Your task to perform on an android device: refresh tabs in the chrome app Image 0: 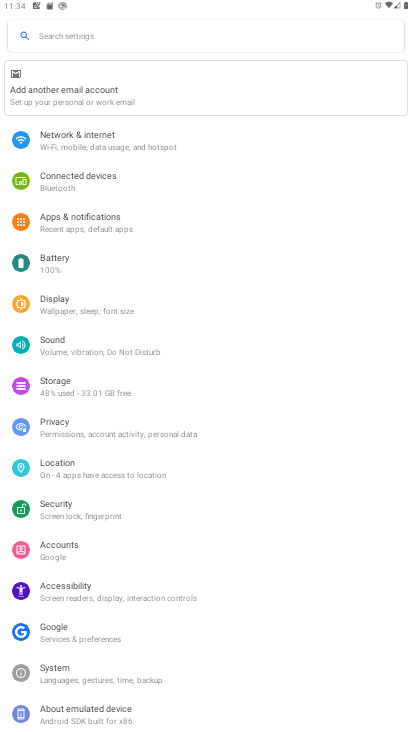
Step 0: press home button
Your task to perform on an android device: refresh tabs in the chrome app Image 1: 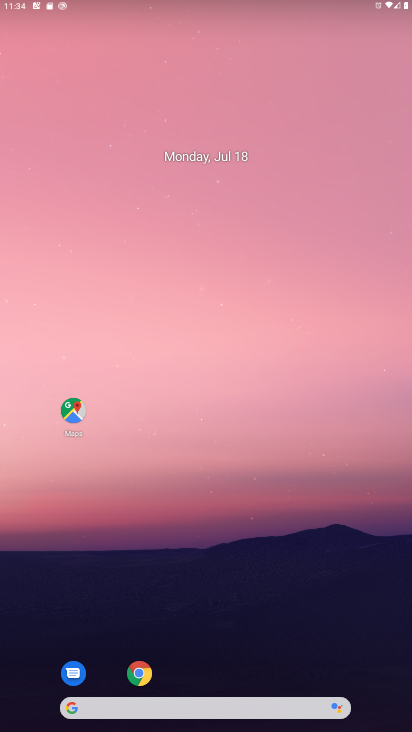
Step 1: click (149, 668)
Your task to perform on an android device: refresh tabs in the chrome app Image 2: 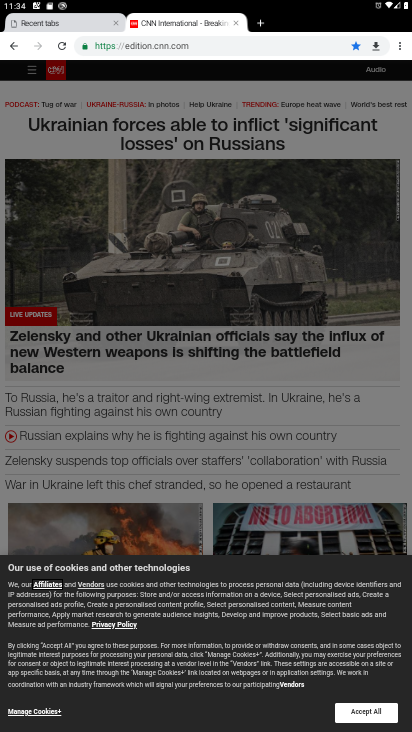
Step 2: click (392, 49)
Your task to perform on an android device: refresh tabs in the chrome app Image 3: 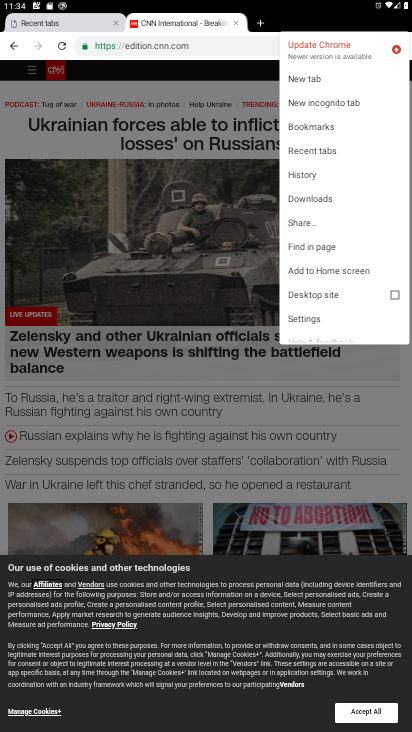
Step 3: drag from (342, 95) to (156, 315)
Your task to perform on an android device: refresh tabs in the chrome app Image 4: 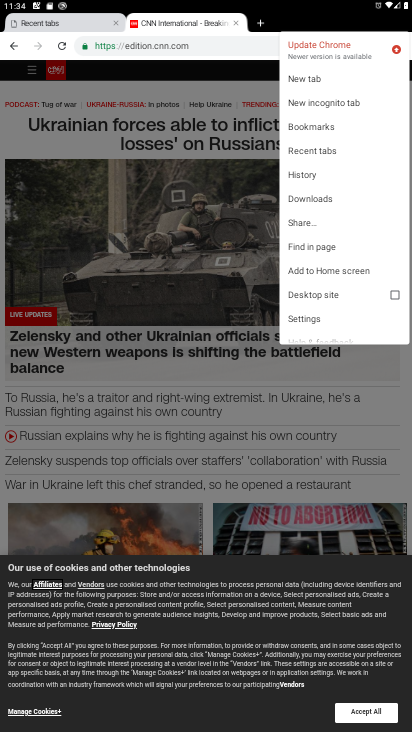
Step 4: click (217, 107)
Your task to perform on an android device: refresh tabs in the chrome app Image 5: 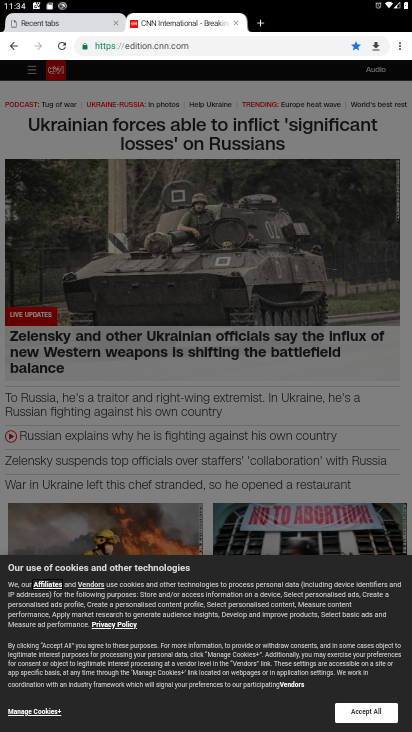
Step 5: click (89, 23)
Your task to perform on an android device: refresh tabs in the chrome app Image 6: 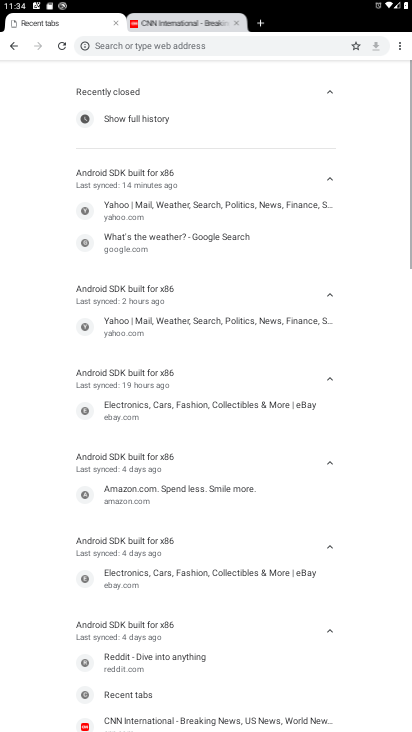
Step 6: click (400, 47)
Your task to perform on an android device: refresh tabs in the chrome app Image 7: 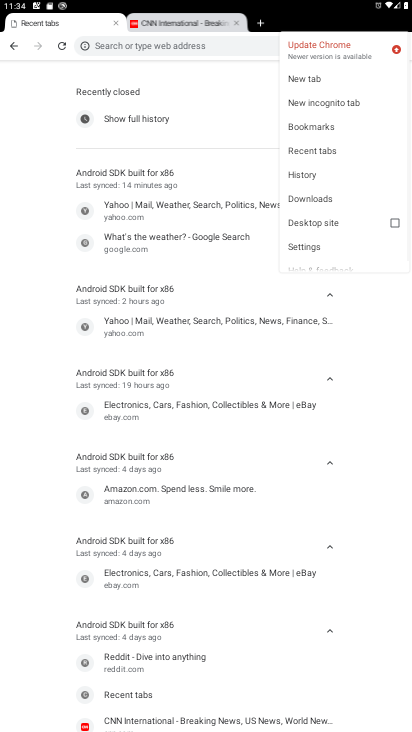
Step 7: drag from (335, 235) to (316, 37)
Your task to perform on an android device: refresh tabs in the chrome app Image 8: 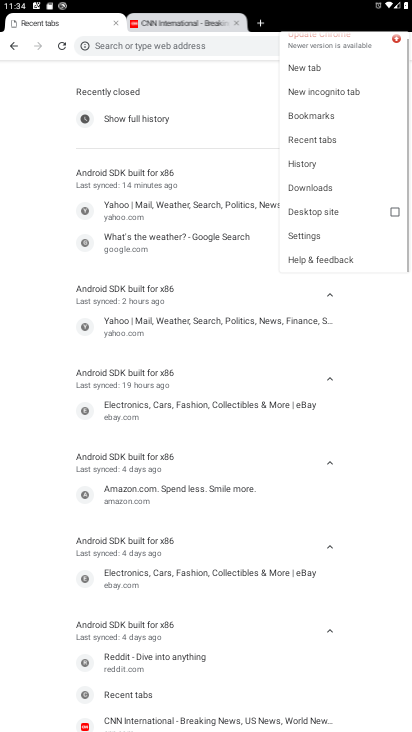
Step 8: click (63, 51)
Your task to perform on an android device: refresh tabs in the chrome app Image 9: 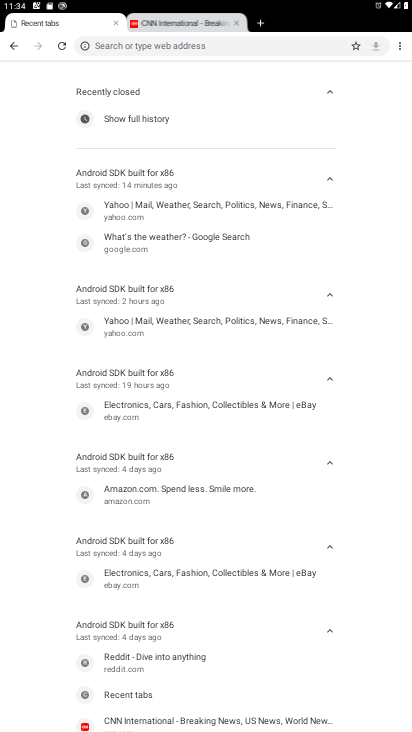
Step 9: click (60, 45)
Your task to perform on an android device: refresh tabs in the chrome app Image 10: 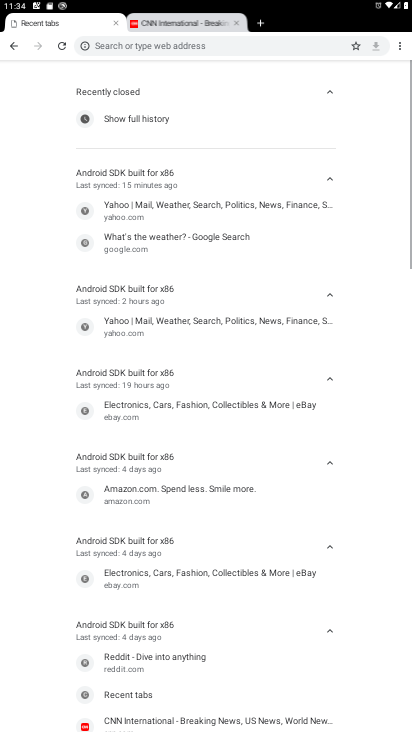
Step 10: task complete